Your task to perform on an android device: turn off sleep mode Image 0: 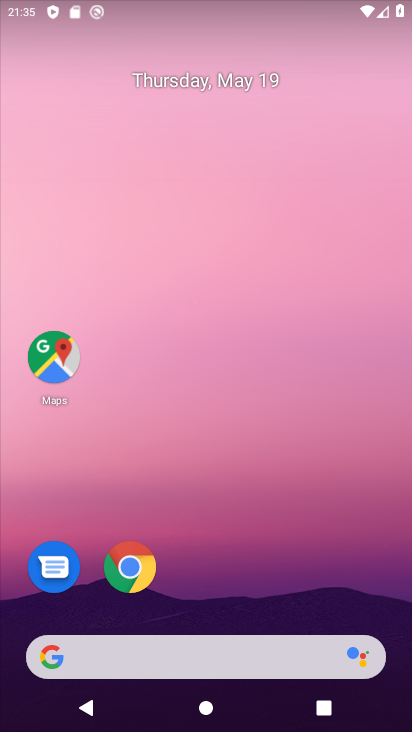
Step 0: drag from (251, 569) to (207, 162)
Your task to perform on an android device: turn off sleep mode Image 1: 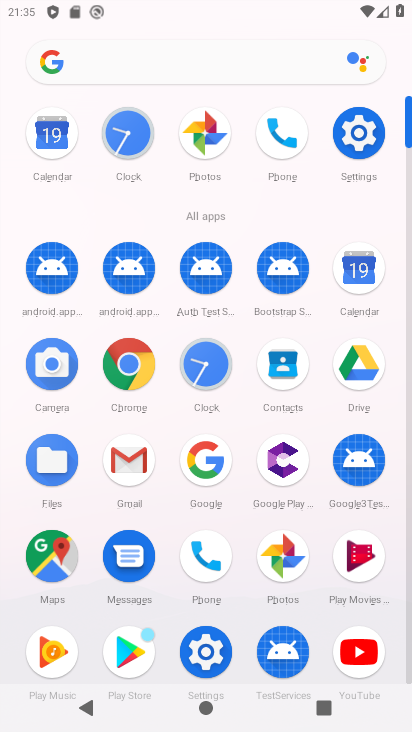
Step 1: click (350, 126)
Your task to perform on an android device: turn off sleep mode Image 2: 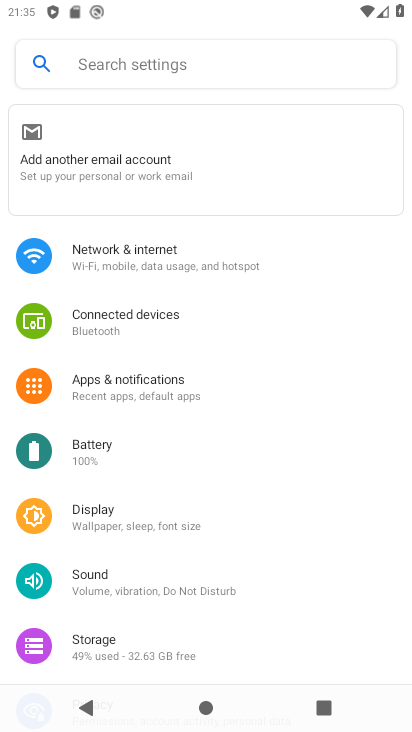
Step 2: click (130, 509)
Your task to perform on an android device: turn off sleep mode Image 3: 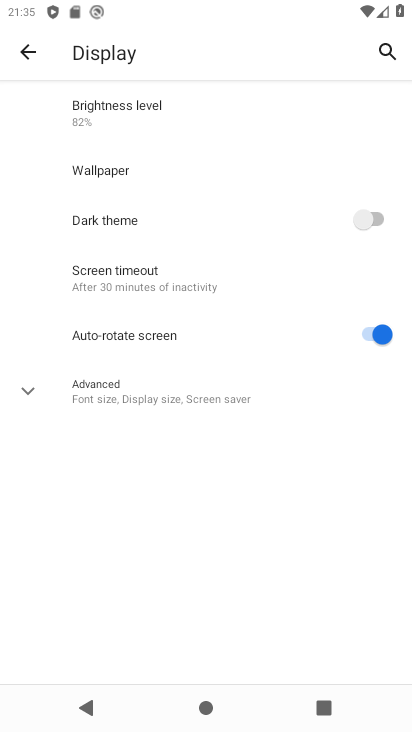
Step 3: click (32, 386)
Your task to perform on an android device: turn off sleep mode Image 4: 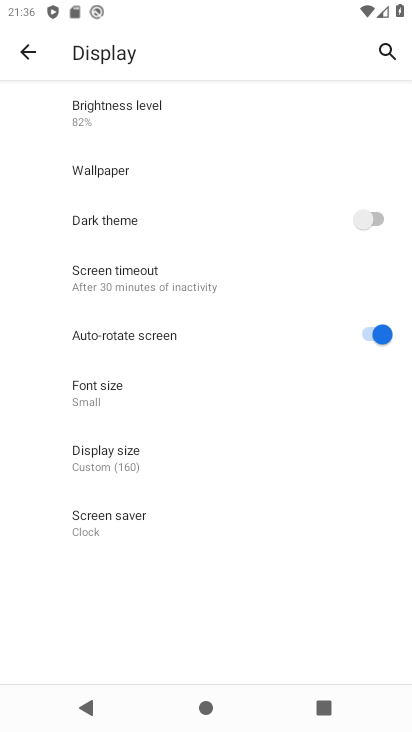
Step 4: task complete